Your task to perform on an android device: turn on translation in the chrome app Image 0: 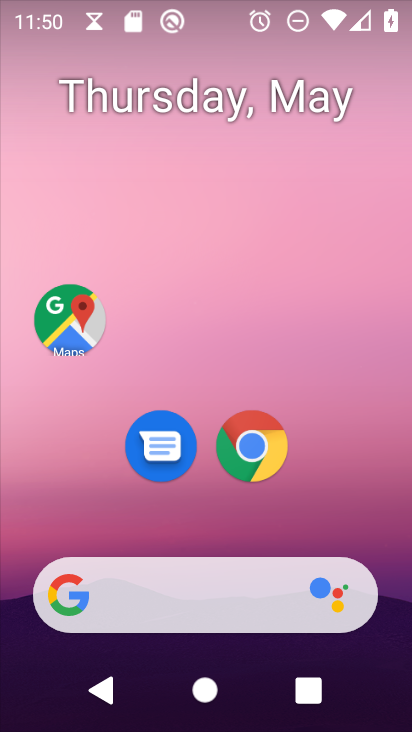
Step 0: drag from (278, 576) to (358, 228)
Your task to perform on an android device: turn on translation in the chrome app Image 1: 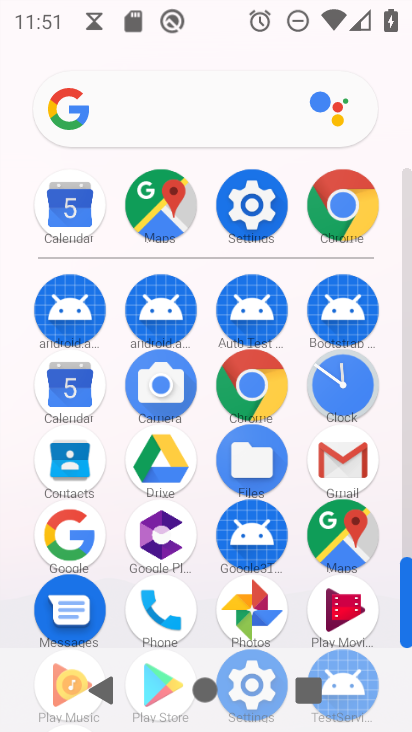
Step 1: click (343, 200)
Your task to perform on an android device: turn on translation in the chrome app Image 2: 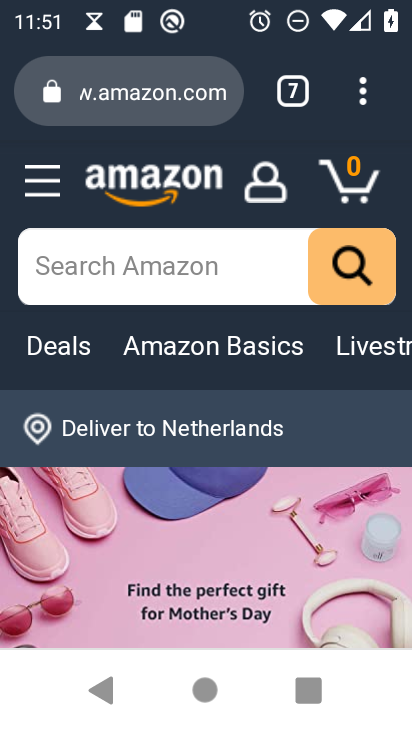
Step 2: click (366, 90)
Your task to perform on an android device: turn on translation in the chrome app Image 3: 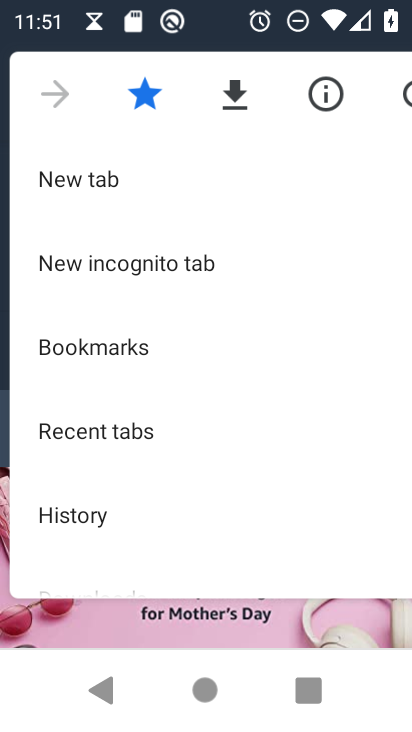
Step 3: drag from (219, 510) to (238, 227)
Your task to perform on an android device: turn on translation in the chrome app Image 4: 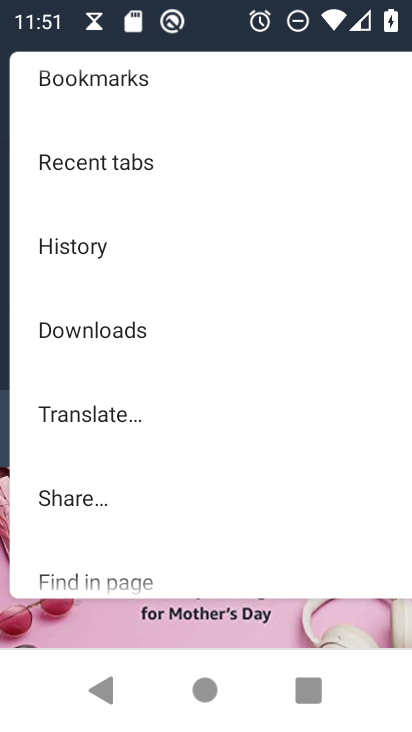
Step 4: drag from (171, 506) to (192, 229)
Your task to perform on an android device: turn on translation in the chrome app Image 5: 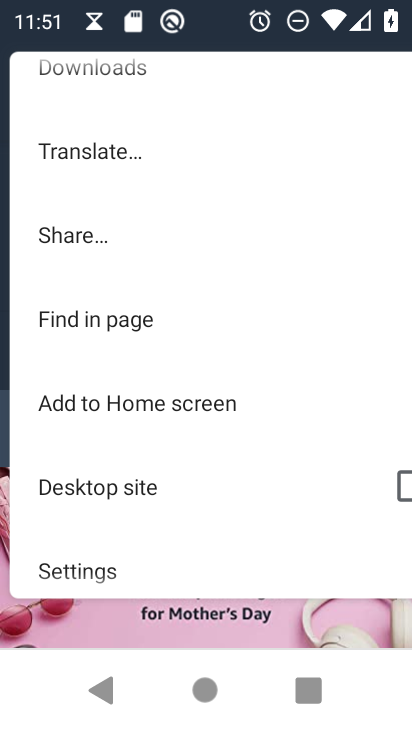
Step 5: click (99, 573)
Your task to perform on an android device: turn on translation in the chrome app Image 6: 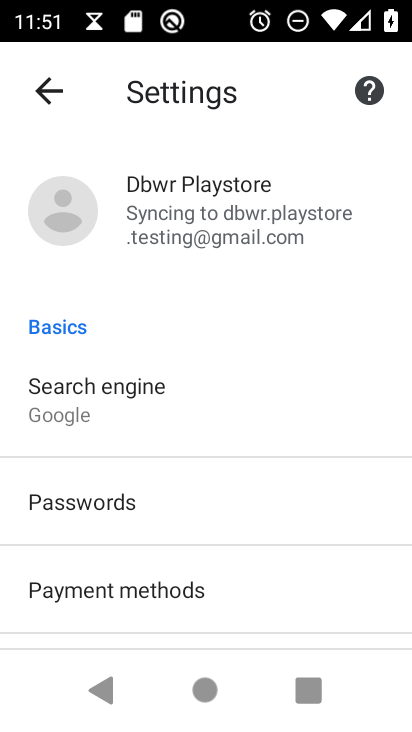
Step 6: drag from (99, 574) to (126, 366)
Your task to perform on an android device: turn on translation in the chrome app Image 7: 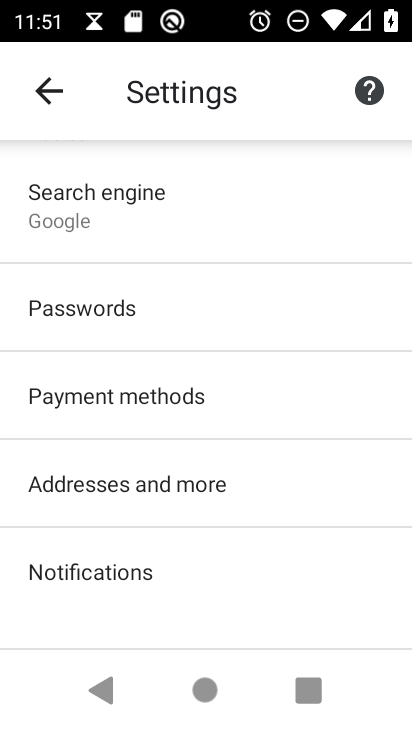
Step 7: drag from (151, 573) to (194, 355)
Your task to perform on an android device: turn on translation in the chrome app Image 8: 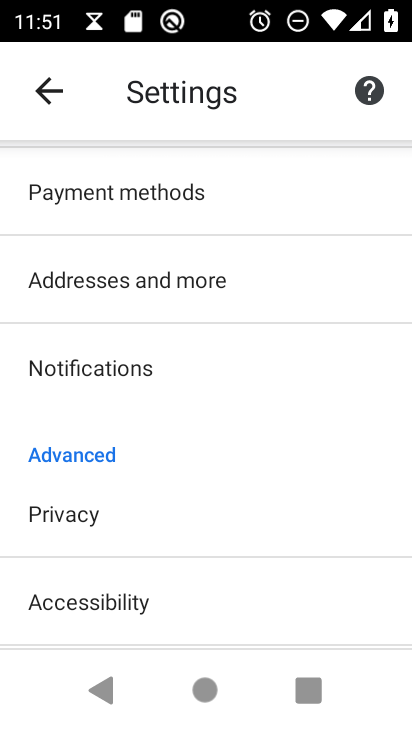
Step 8: drag from (105, 582) to (158, 378)
Your task to perform on an android device: turn on translation in the chrome app Image 9: 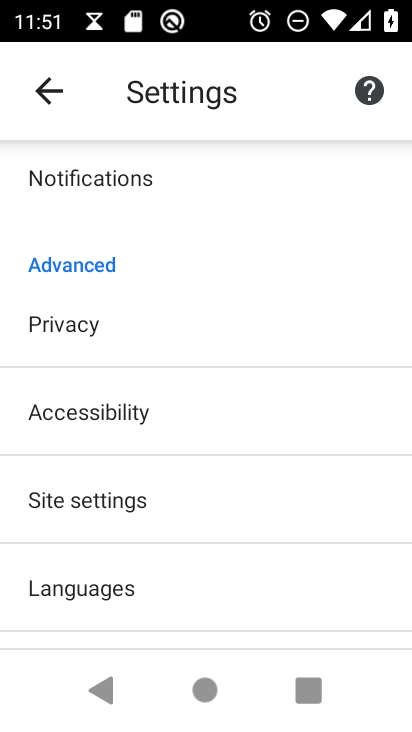
Step 9: click (116, 588)
Your task to perform on an android device: turn on translation in the chrome app Image 10: 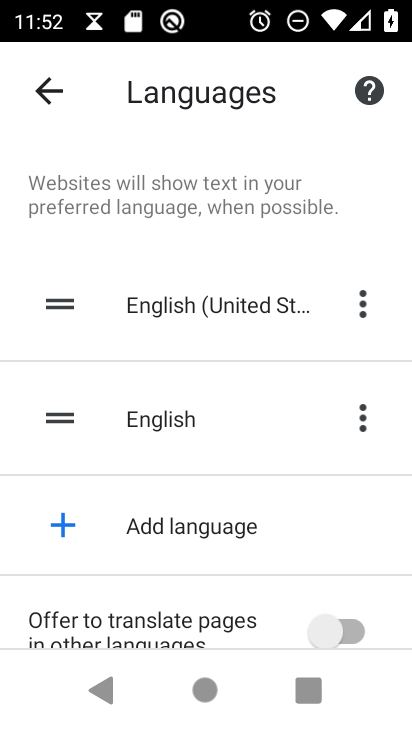
Step 10: click (233, 615)
Your task to perform on an android device: turn on translation in the chrome app Image 11: 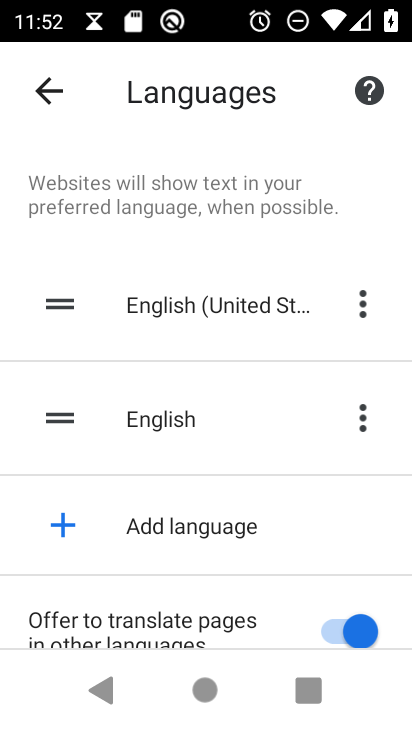
Step 11: task complete